Your task to perform on an android device: What's on my calendar today? Image 0: 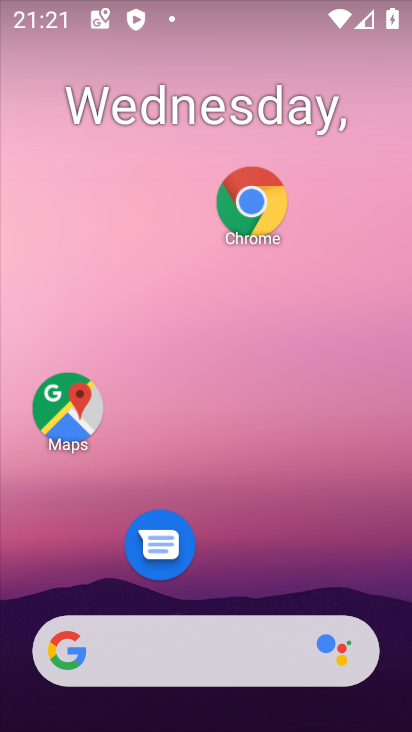
Step 0: click (169, 107)
Your task to perform on an android device: What's on my calendar today? Image 1: 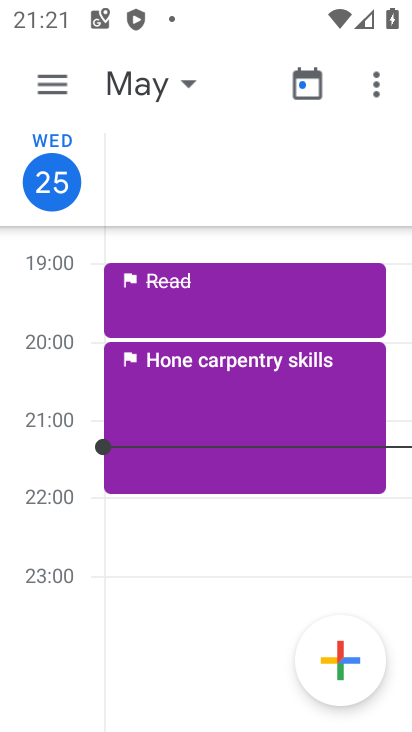
Step 1: click (148, 96)
Your task to perform on an android device: What's on my calendar today? Image 2: 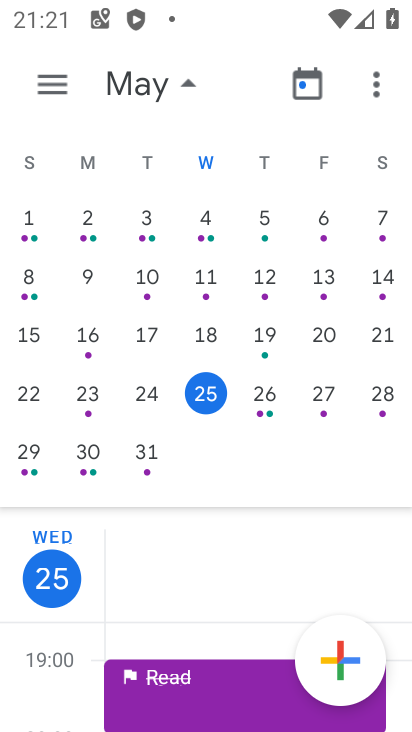
Step 2: click (201, 392)
Your task to perform on an android device: What's on my calendar today? Image 3: 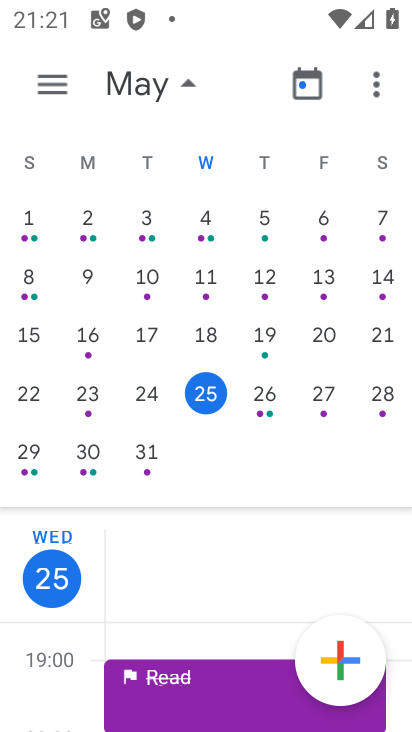
Step 3: task complete